Your task to perform on an android device: Go to battery settings Image 0: 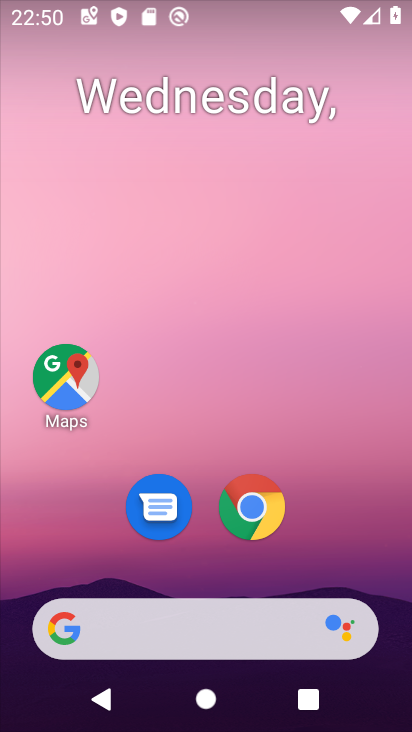
Step 0: drag from (334, 517) to (343, 217)
Your task to perform on an android device: Go to battery settings Image 1: 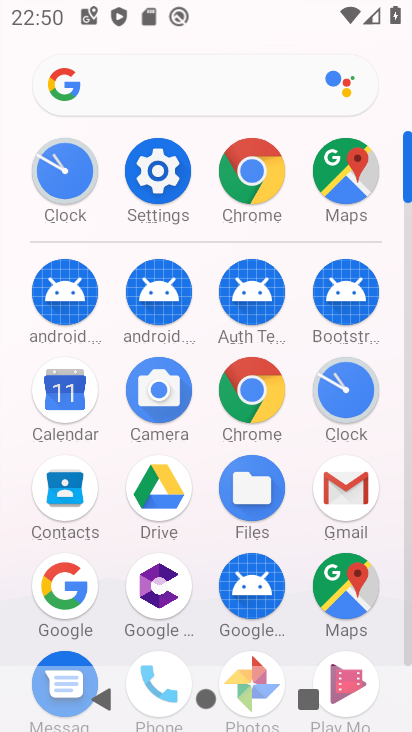
Step 1: click (158, 164)
Your task to perform on an android device: Go to battery settings Image 2: 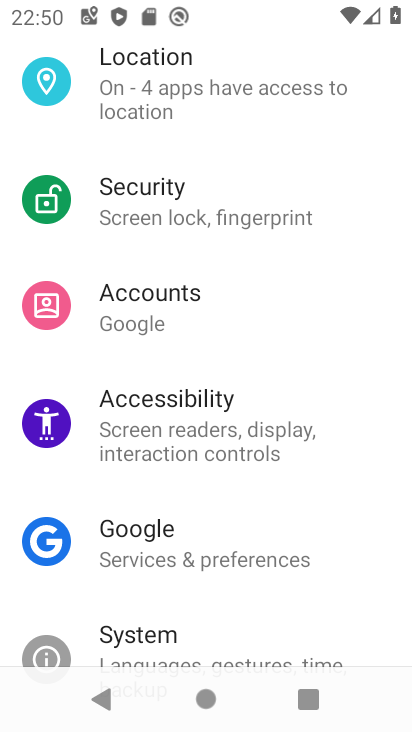
Step 2: drag from (194, 137) to (186, 594)
Your task to perform on an android device: Go to battery settings Image 3: 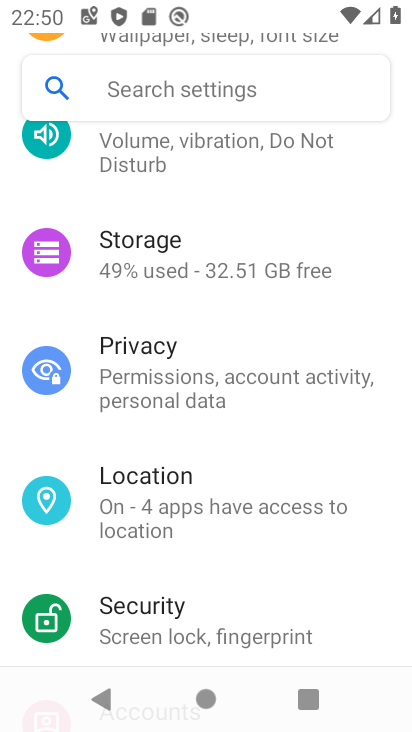
Step 3: drag from (222, 194) to (234, 531)
Your task to perform on an android device: Go to battery settings Image 4: 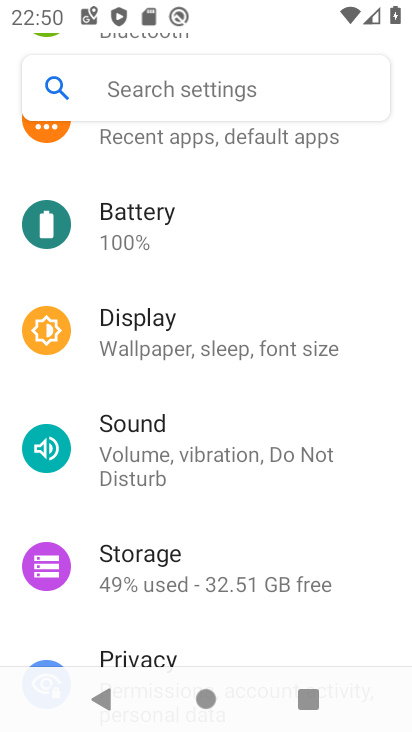
Step 4: click (174, 221)
Your task to perform on an android device: Go to battery settings Image 5: 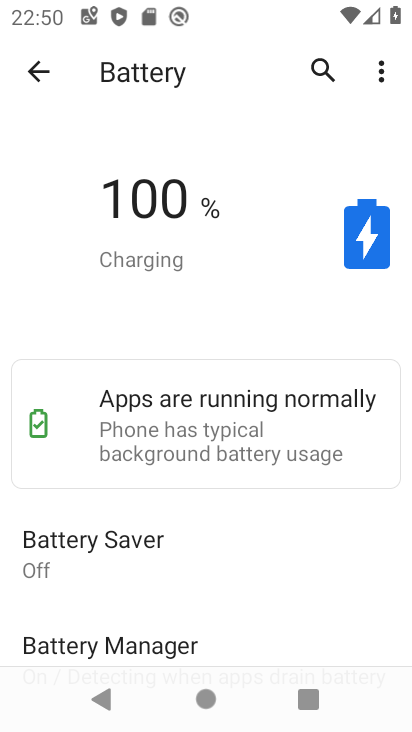
Step 5: task complete